Your task to perform on an android device: add a label to a message in the gmail app Image 0: 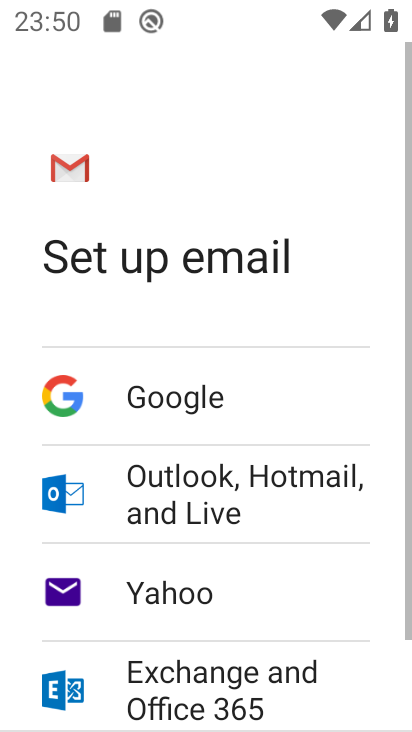
Step 0: click (71, 165)
Your task to perform on an android device: add a label to a message in the gmail app Image 1: 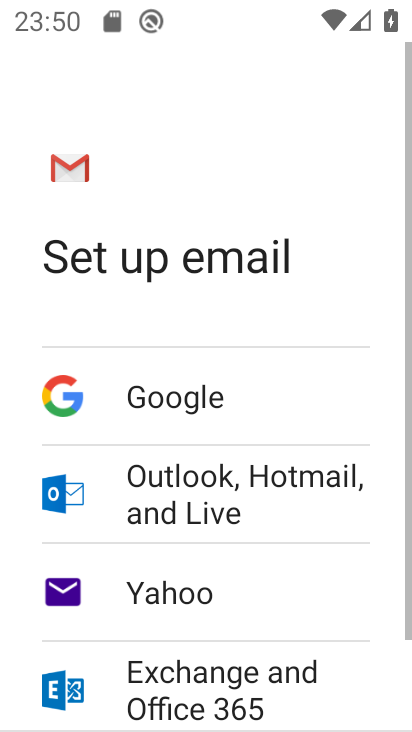
Step 1: press home button
Your task to perform on an android device: add a label to a message in the gmail app Image 2: 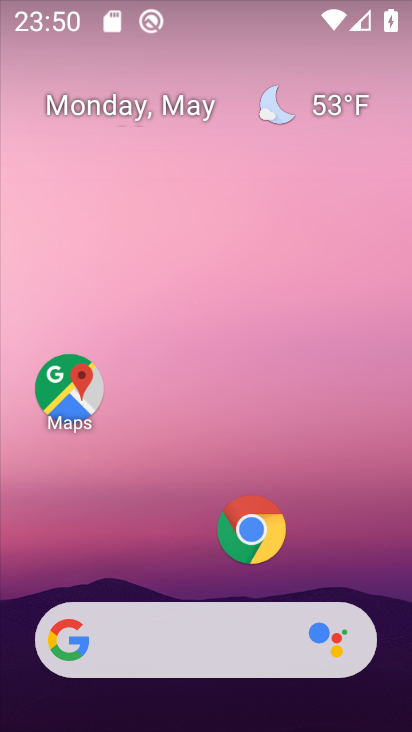
Step 2: drag from (331, 437) to (328, 136)
Your task to perform on an android device: add a label to a message in the gmail app Image 3: 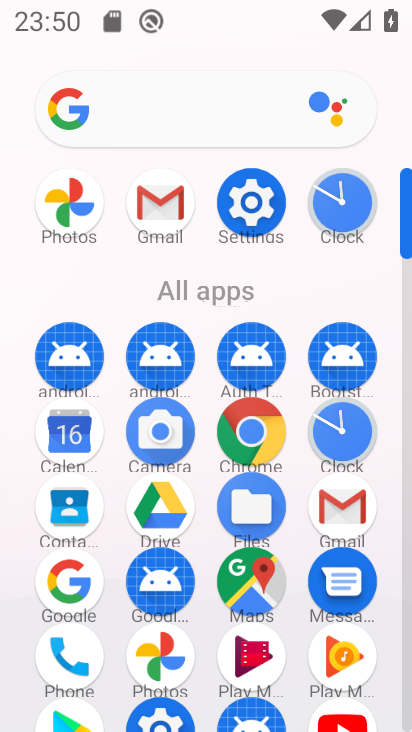
Step 3: click (166, 204)
Your task to perform on an android device: add a label to a message in the gmail app Image 4: 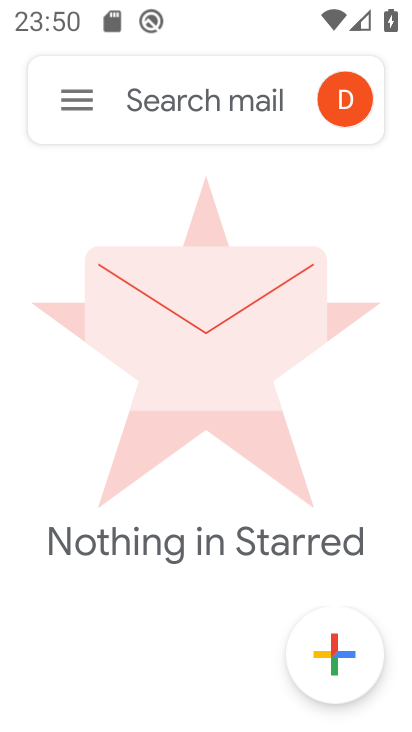
Step 4: click (73, 107)
Your task to perform on an android device: add a label to a message in the gmail app Image 5: 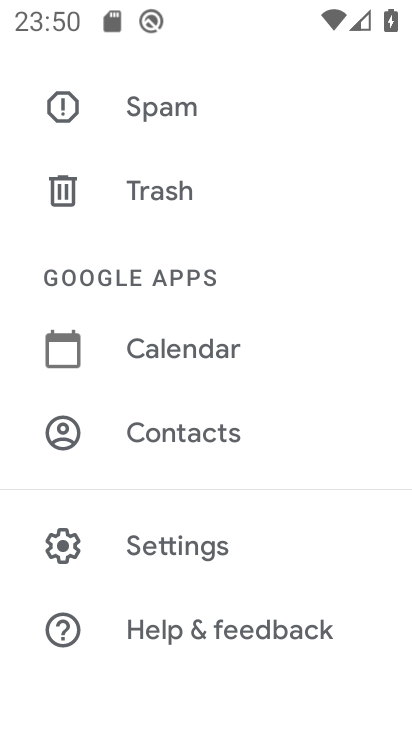
Step 5: drag from (196, 143) to (227, 453)
Your task to perform on an android device: add a label to a message in the gmail app Image 6: 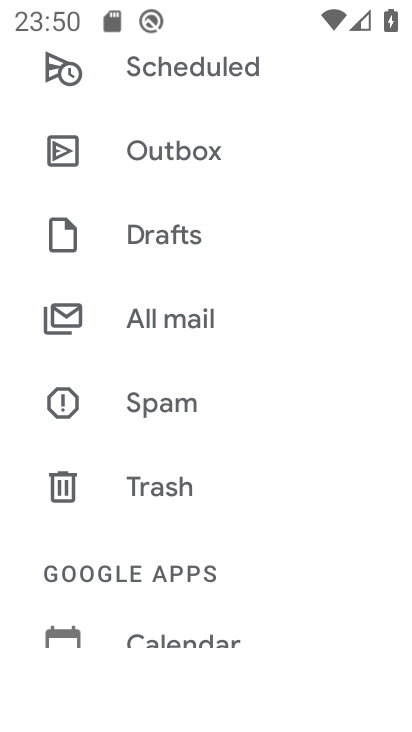
Step 6: click (181, 322)
Your task to perform on an android device: add a label to a message in the gmail app Image 7: 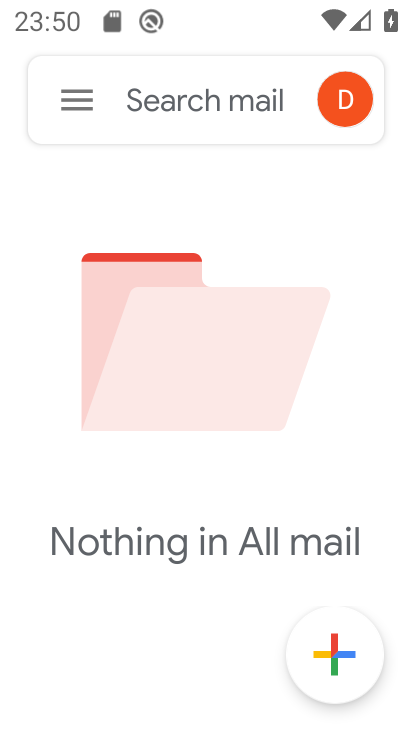
Step 7: task complete